Your task to perform on an android device: Open my contact list Image 0: 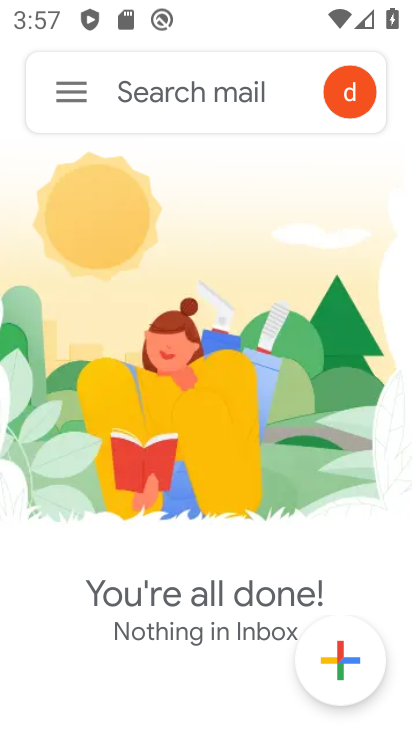
Step 0: press home button
Your task to perform on an android device: Open my contact list Image 1: 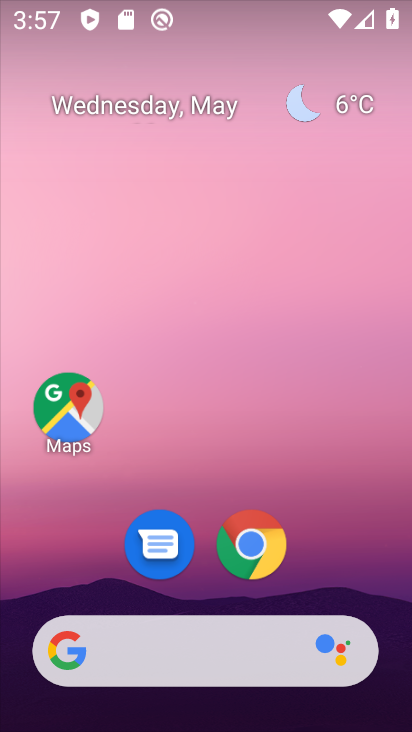
Step 1: drag from (2, 706) to (217, 200)
Your task to perform on an android device: Open my contact list Image 2: 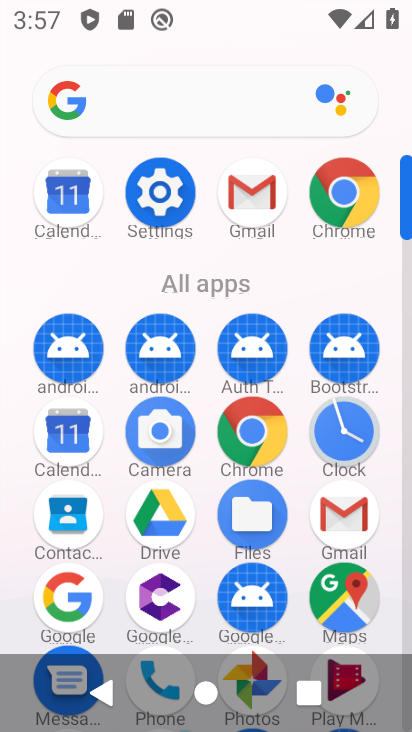
Step 2: drag from (88, 625) to (231, 195)
Your task to perform on an android device: Open my contact list Image 3: 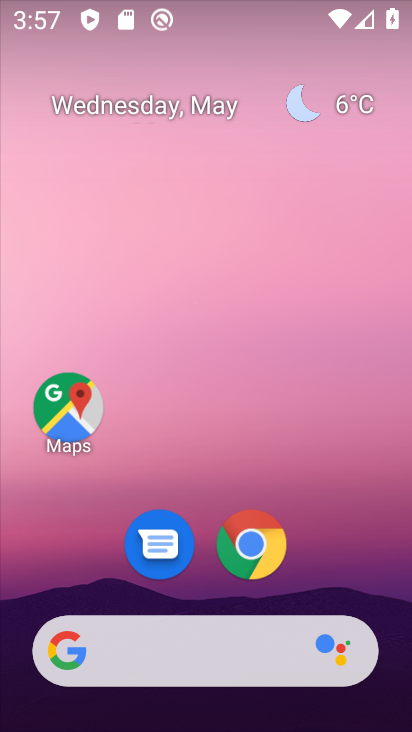
Step 3: drag from (16, 692) to (285, 111)
Your task to perform on an android device: Open my contact list Image 4: 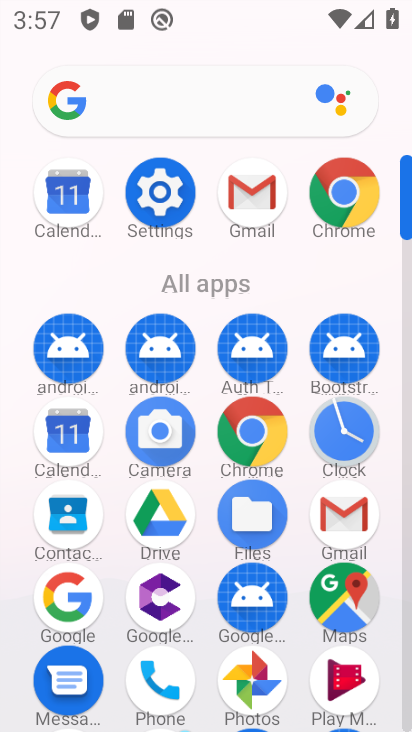
Step 4: click (175, 669)
Your task to perform on an android device: Open my contact list Image 5: 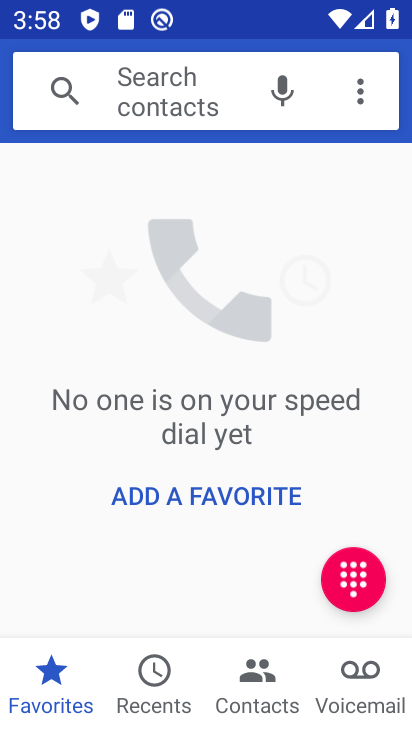
Step 5: click (256, 677)
Your task to perform on an android device: Open my contact list Image 6: 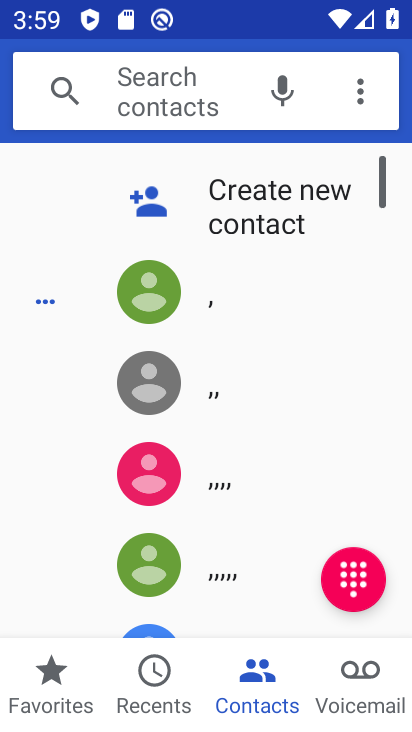
Step 6: task complete